Your task to perform on an android device: check the backup settings in the google photos Image 0: 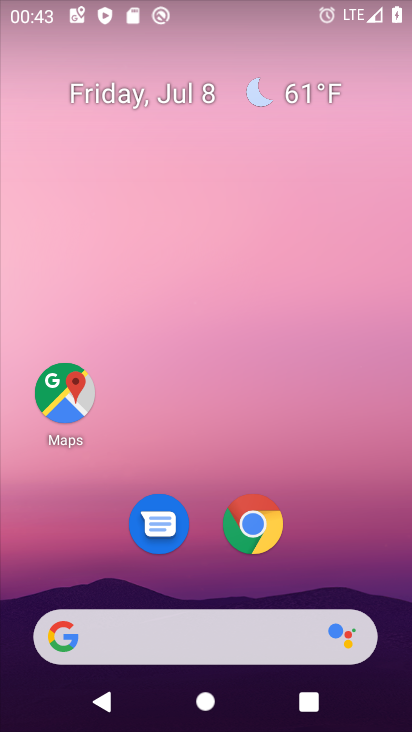
Step 0: drag from (330, 525) to (347, 23)
Your task to perform on an android device: check the backup settings in the google photos Image 1: 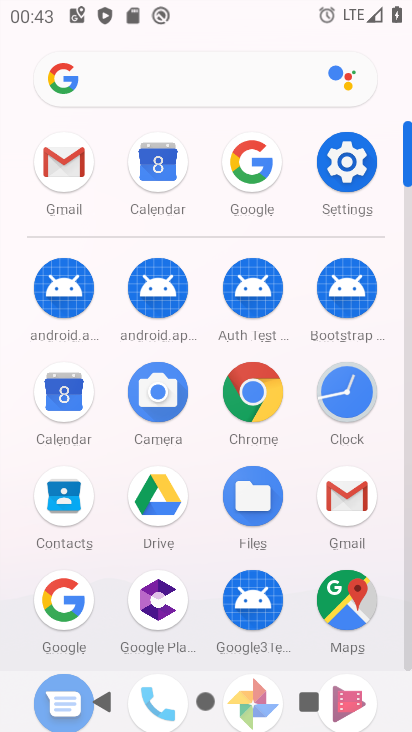
Step 1: drag from (201, 467) to (201, 303)
Your task to perform on an android device: check the backup settings in the google photos Image 2: 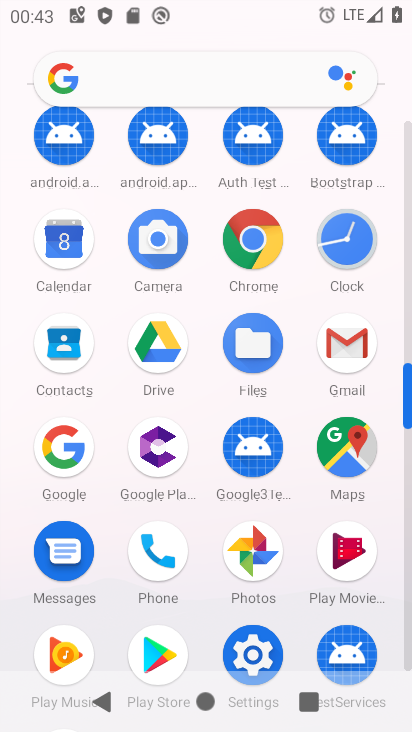
Step 2: click (244, 540)
Your task to perform on an android device: check the backup settings in the google photos Image 3: 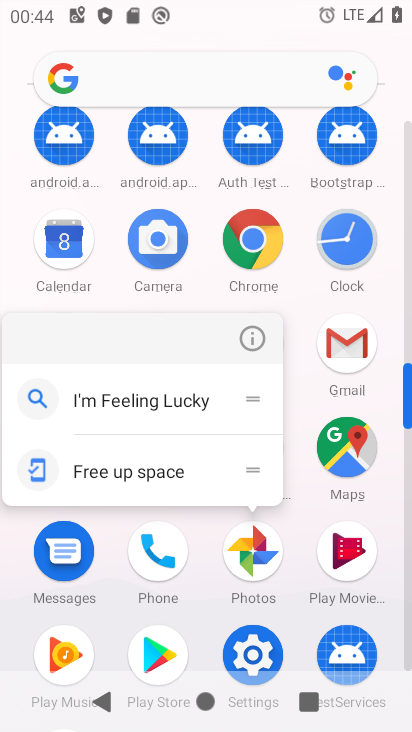
Step 3: click (246, 543)
Your task to perform on an android device: check the backup settings in the google photos Image 4: 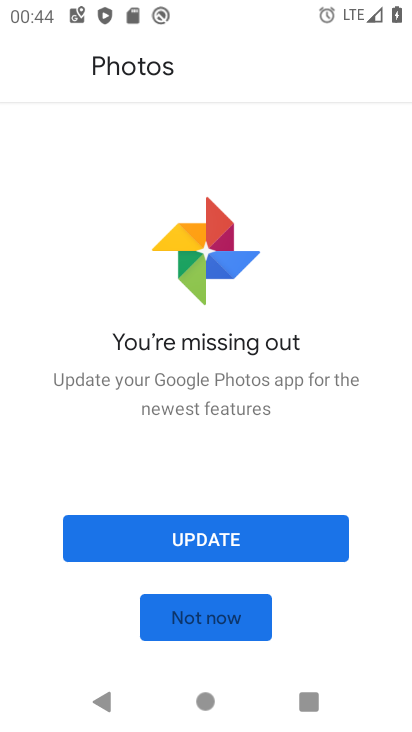
Step 4: click (231, 617)
Your task to perform on an android device: check the backup settings in the google photos Image 5: 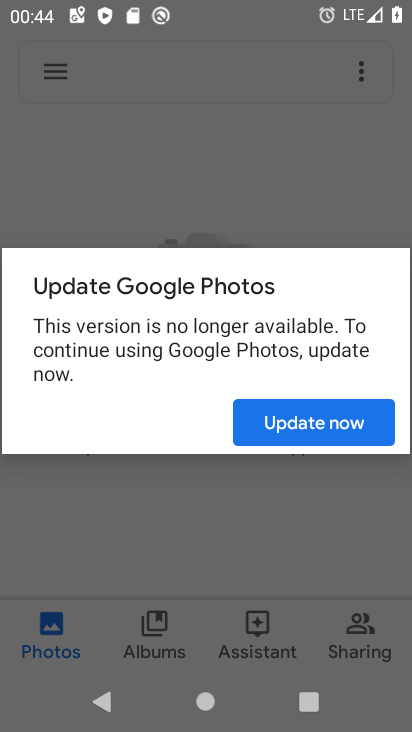
Step 5: click (328, 421)
Your task to perform on an android device: check the backup settings in the google photos Image 6: 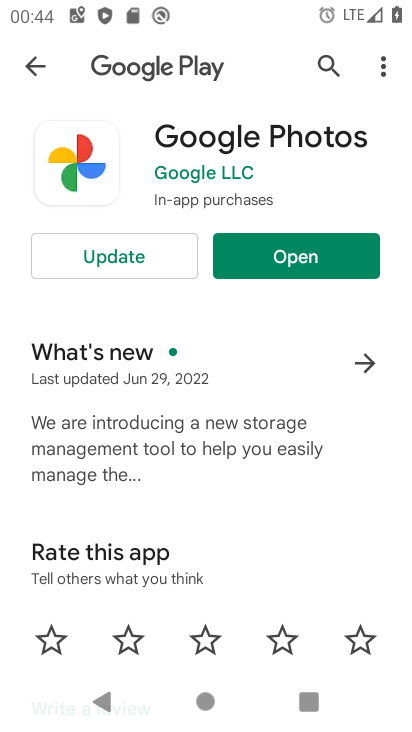
Step 6: click (241, 256)
Your task to perform on an android device: check the backup settings in the google photos Image 7: 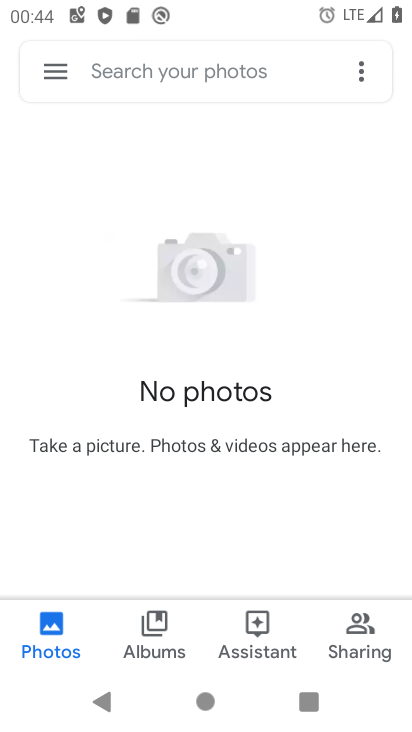
Step 7: click (58, 64)
Your task to perform on an android device: check the backup settings in the google photos Image 8: 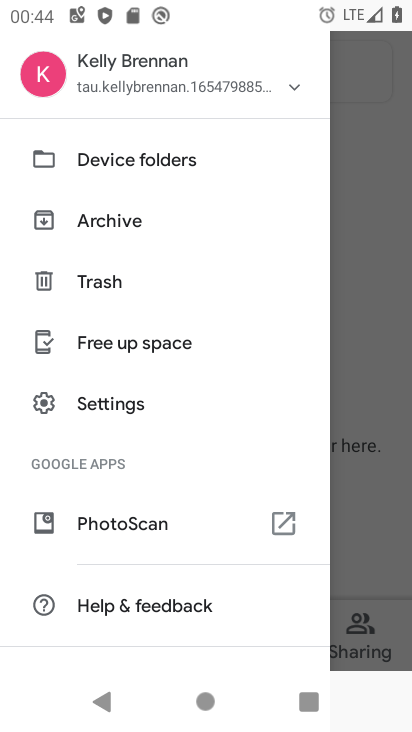
Step 8: click (115, 406)
Your task to perform on an android device: check the backup settings in the google photos Image 9: 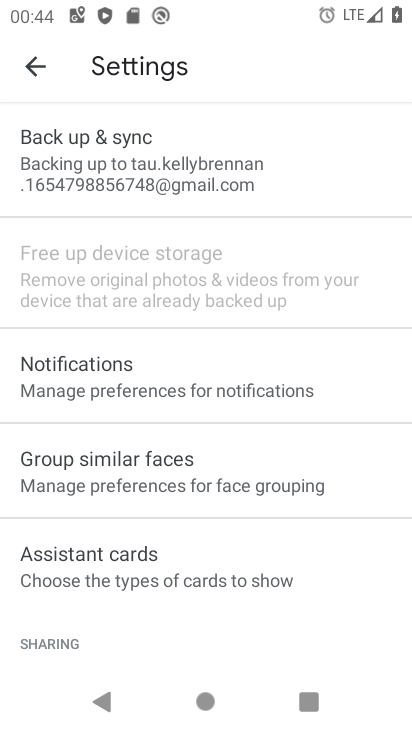
Step 9: click (117, 164)
Your task to perform on an android device: check the backup settings in the google photos Image 10: 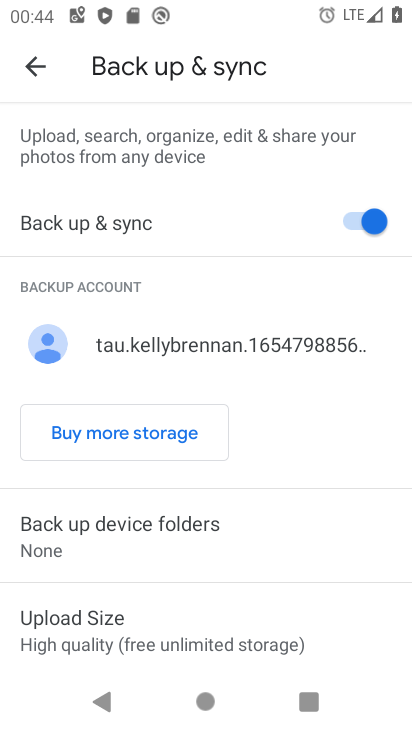
Step 10: task complete